Your task to perform on an android device: open app "Skype" Image 0: 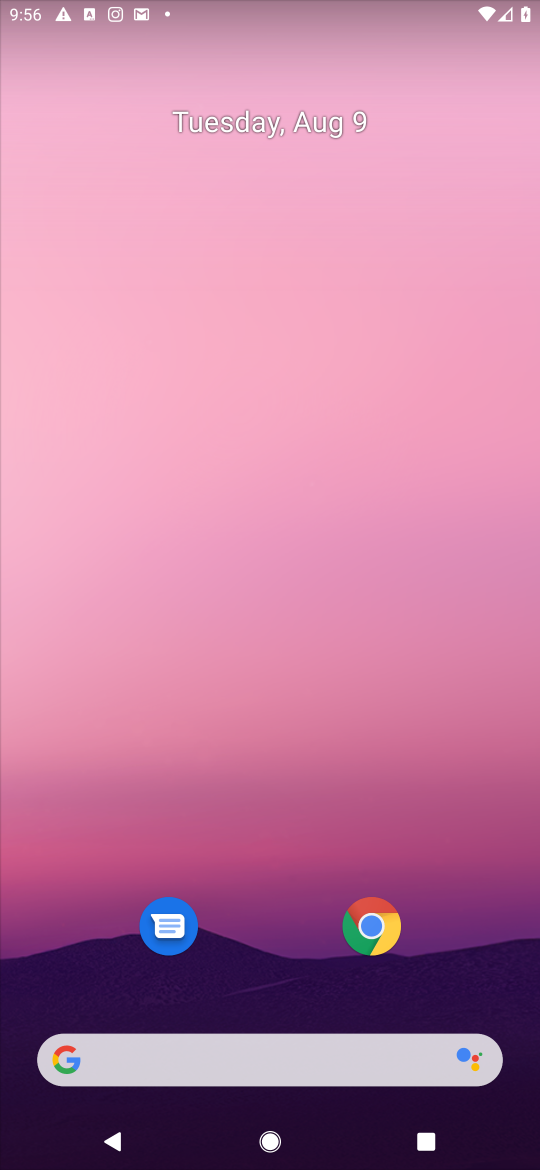
Step 0: drag from (253, 981) to (372, 106)
Your task to perform on an android device: open app "Skype" Image 1: 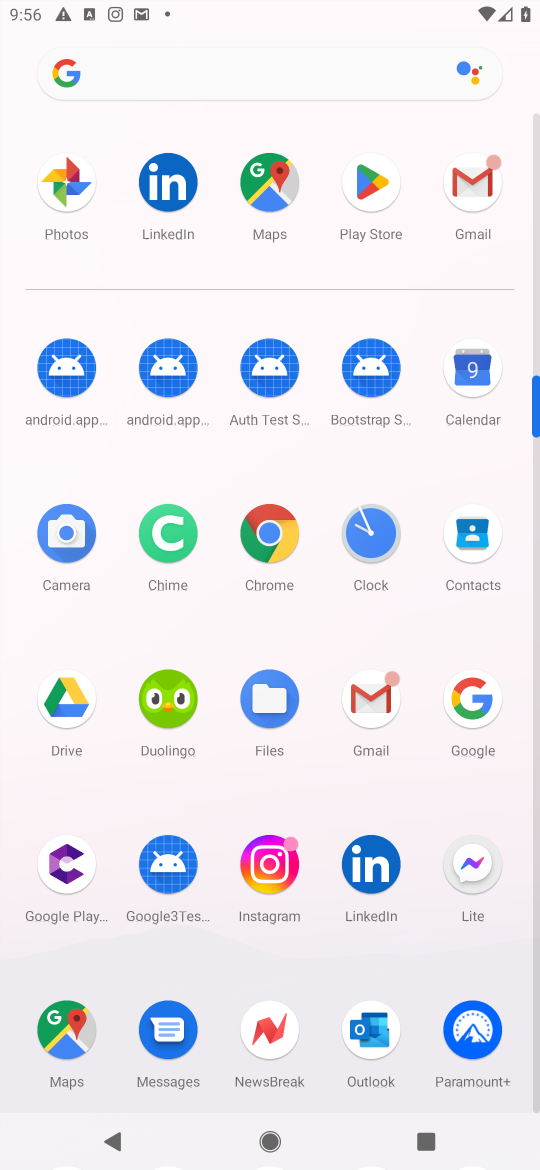
Step 1: click (382, 196)
Your task to perform on an android device: open app "Skype" Image 2: 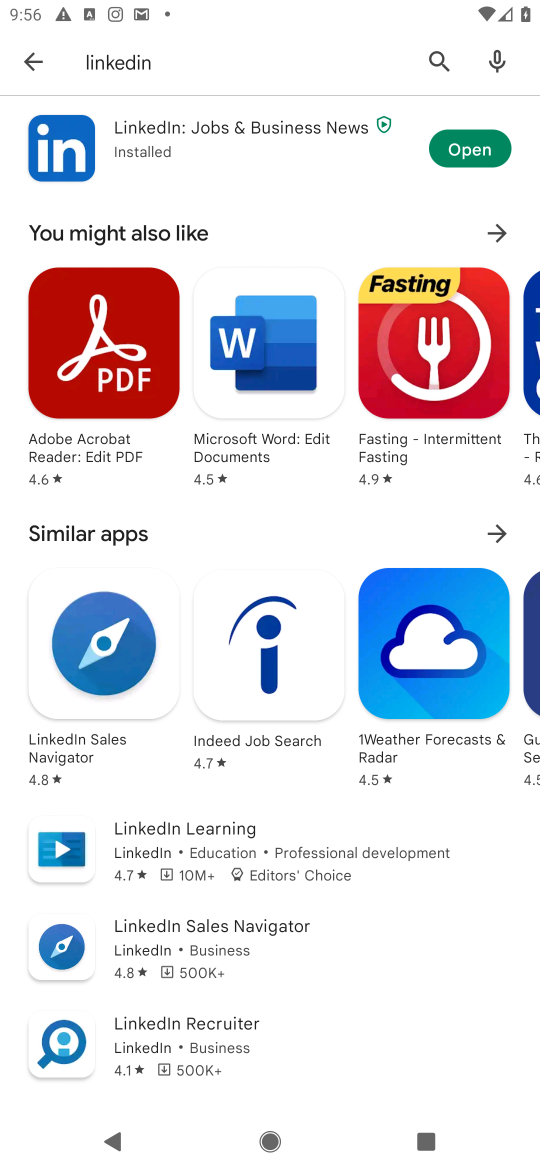
Step 2: click (179, 54)
Your task to perform on an android device: open app "Skype" Image 3: 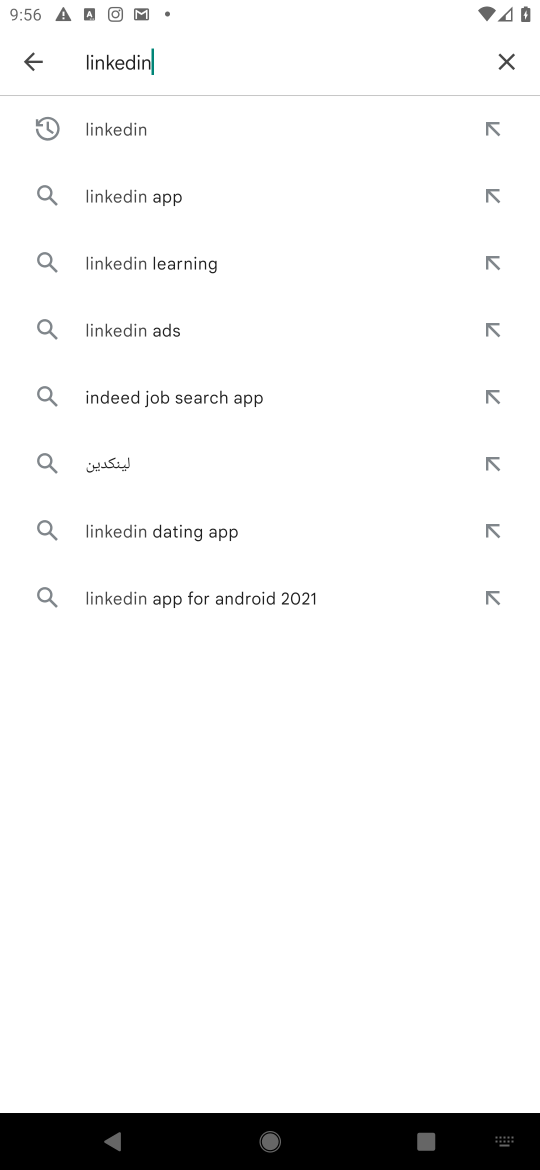
Step 3: click (503, 60)
Your task to perform on an android device: open app "Skype" Image 4: 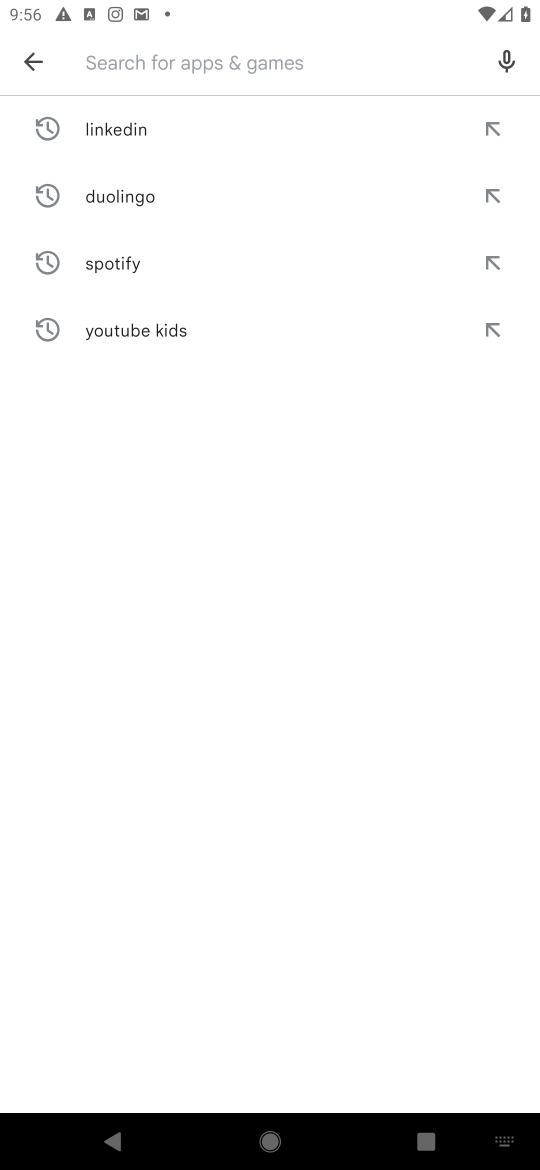
Step 4: type "Skype"
Your task to perform on an android device: open app "Skype" Image 5: 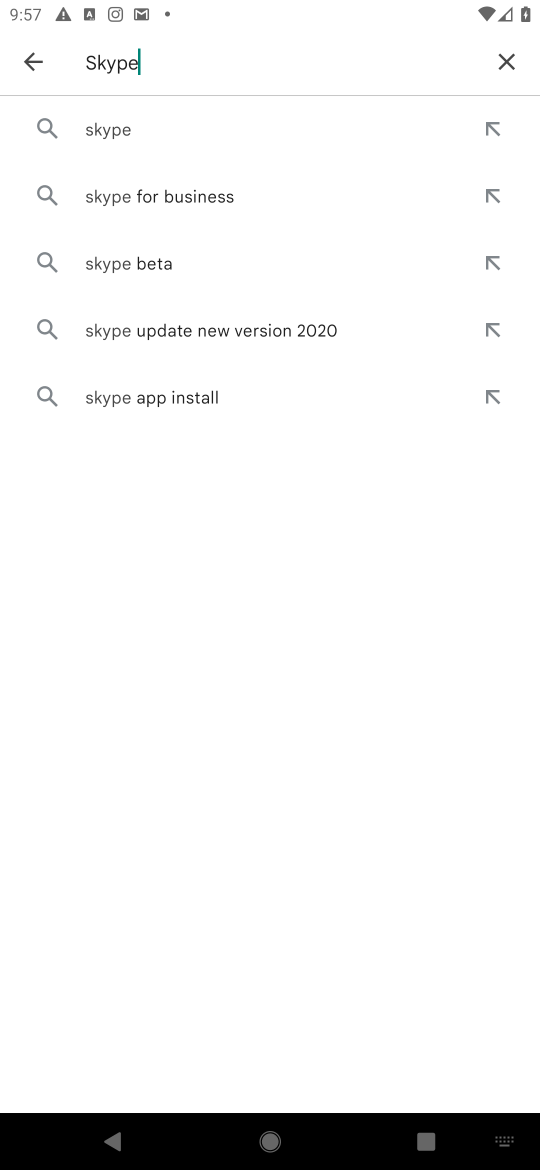
Step 5: click (151, 119)
Your task to perform on an android device: open app "Skype" Image 6: 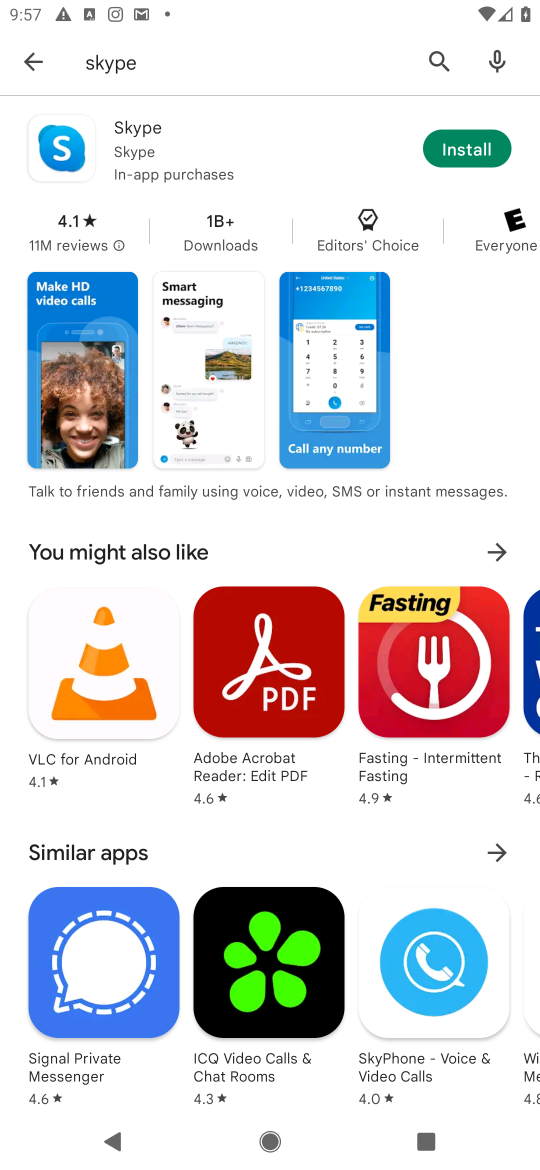
Step 6: task complete